Your task to perform on an android device: find snoozed emails in the gmail app Image 0: 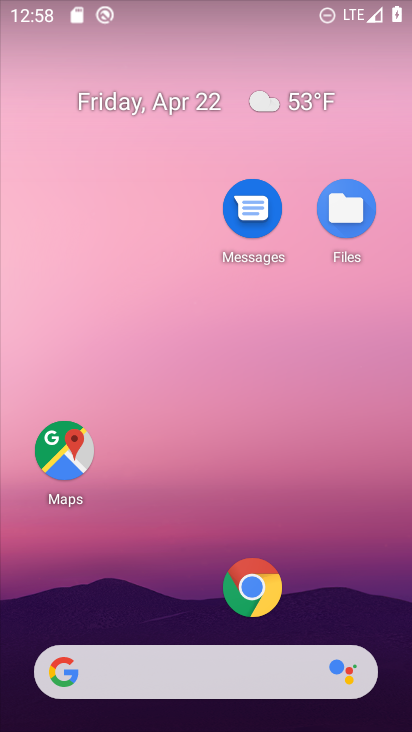
Step 0: drag from (190, 534) to (254, 233)
Your task to perform on an android device: find snoozed emails in the gmail app Image 1: 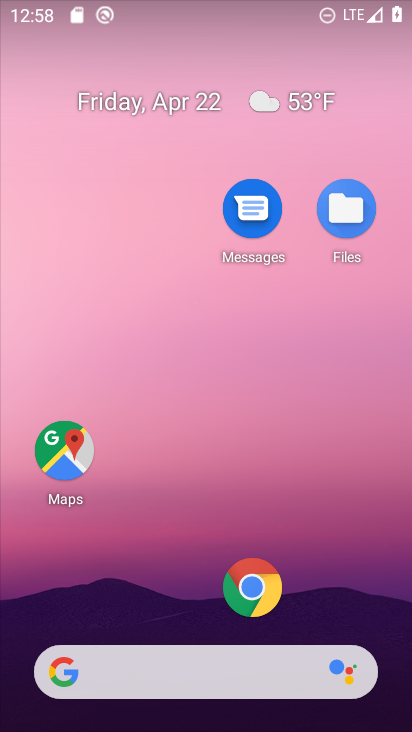
Step 1: drag from (153, 367) to (212, 149)
Your task to perform on an android device: find snoozed emails in the gmail app Image 2: 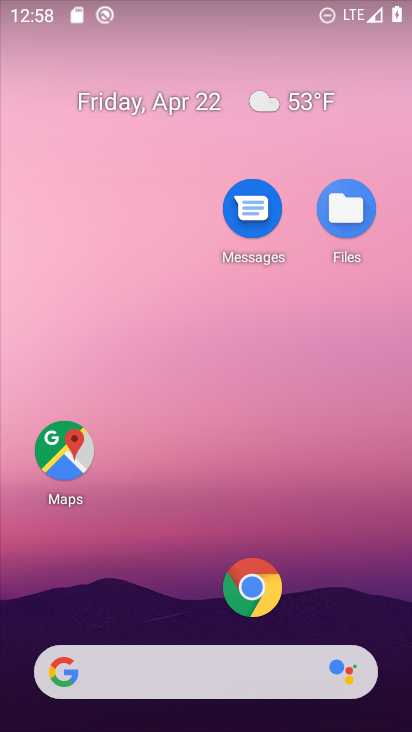
Step 2: drag from (160, 483) to (248, 214)
Your task to perform on an android device: find snoozed emails in the gmail app Image 3: 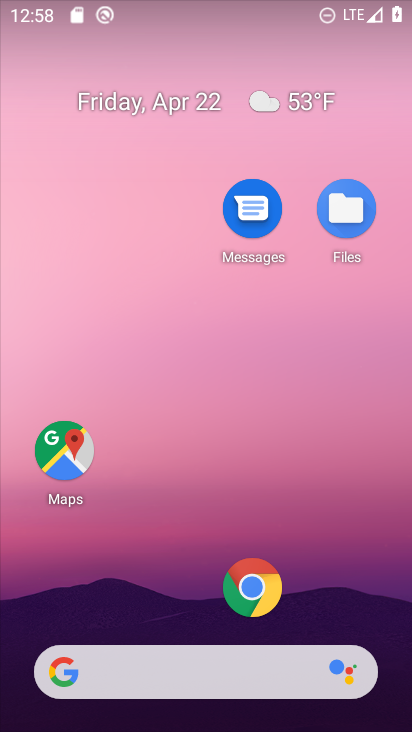
Step 3: drag from (159, 624) to (217, 82)
Your task to perform on an android device: find snoozed emails in the gmail app Image 4: 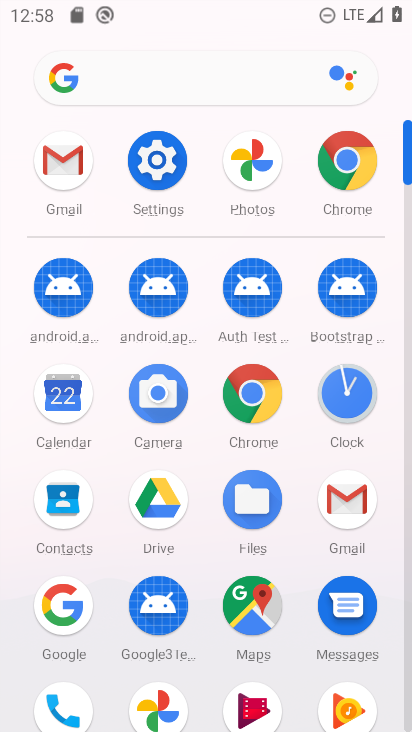
Step 4: click (343, 507)
Your task to perform on an android device: find snoozed emails in the gmail app Image 5: 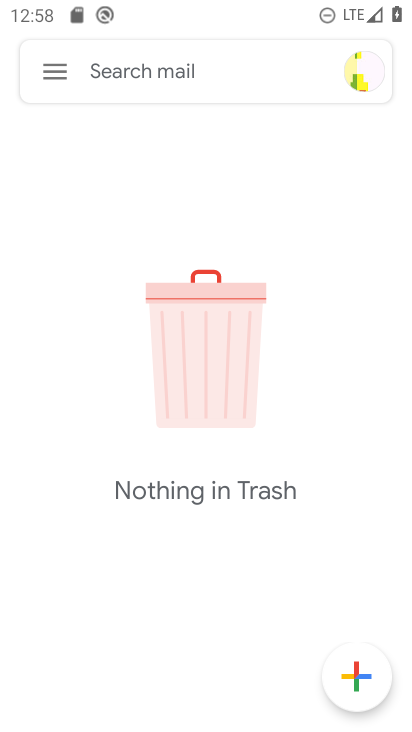
Step 5: click (41, 70)
Your task to perform on an android device: find snoozed emails in the gmail app Image 6: 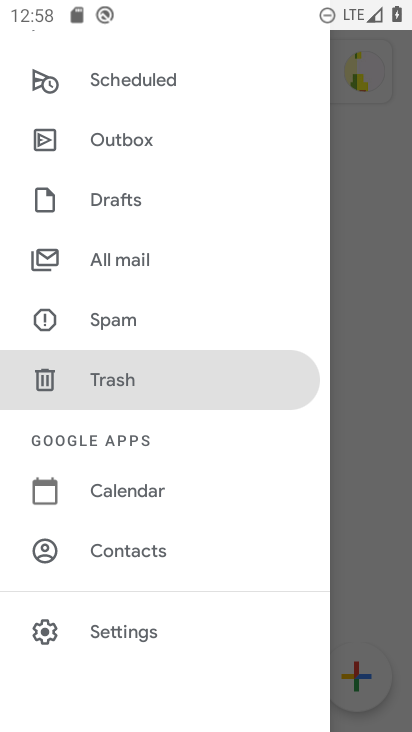
Step 6: drag from (190, 290) to (197, 605)
Your task to perform on an android device: find snoozed emails in the gmail app Image 7: 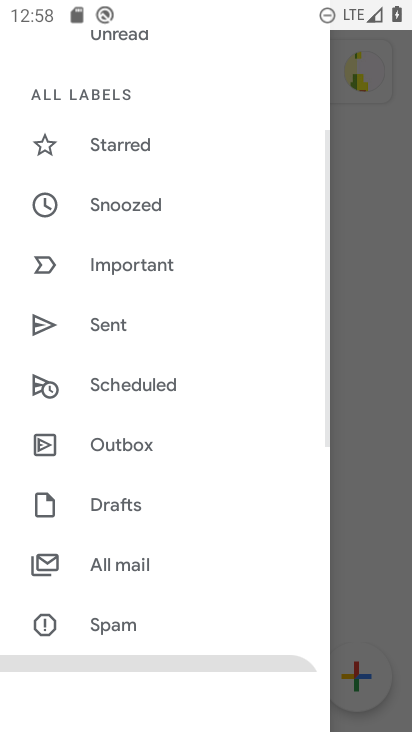
Step 7: click (112, 201)
Your task to perform on an android device: find snoozed emails in the gmail app Image 8: 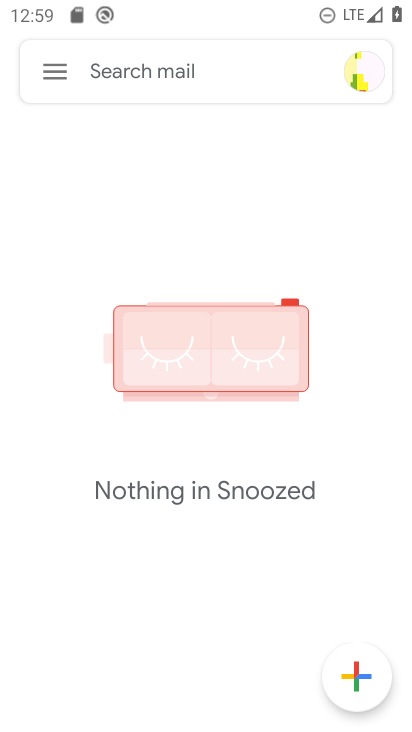
Step 8: task complete